Your task to perform on an android device: change the upload size in google photos Image 0: 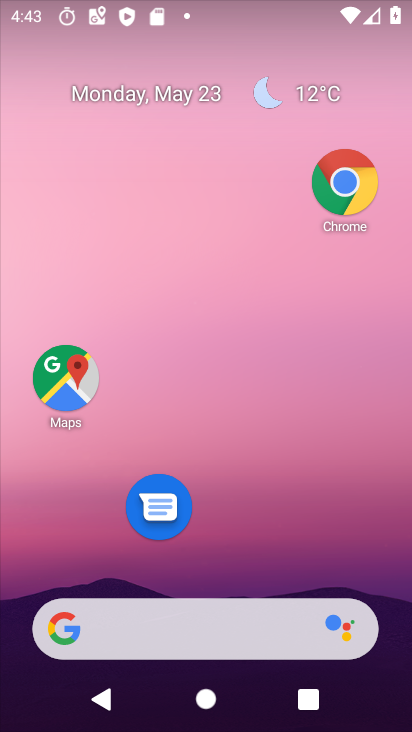
Step 0: drag from (252, 530) to (280, 120)
Your task to perform on an android device: change the upload size in google photos Image 1: 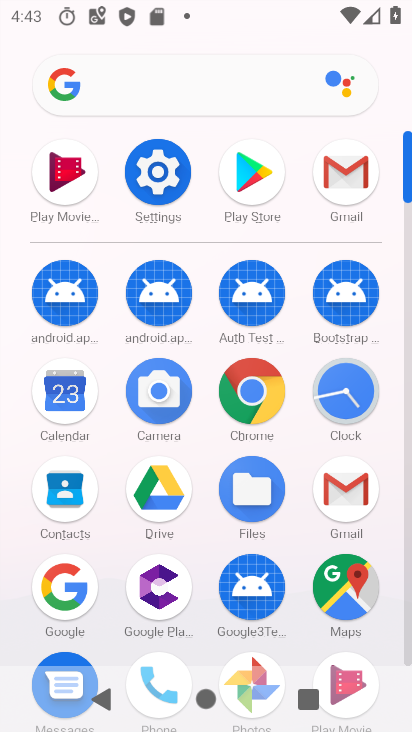
Step 1: click (242, 659)
Your task to perform on an android device: change the upload size in google photos Image 2: 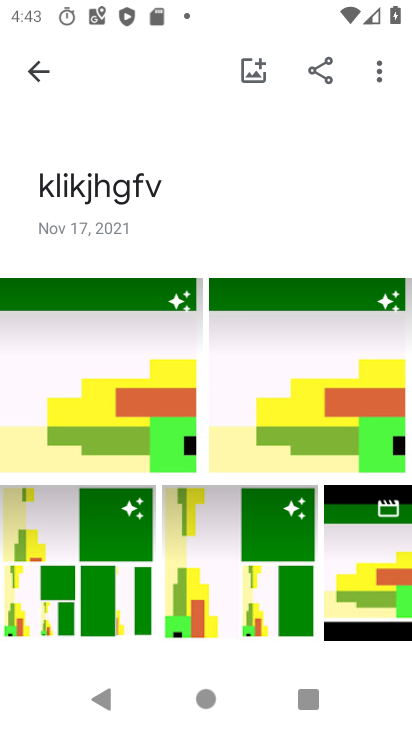
Step 2: click (42, 112)
Your task to perform on an android device: change the upload size in google photos Image 3: 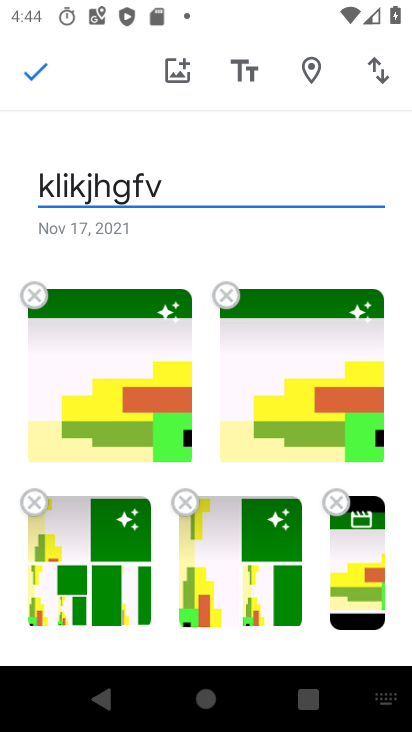
Step 3: click (46, 77)
Your task to perform on an android device: change the upload size in google photos Image 4: 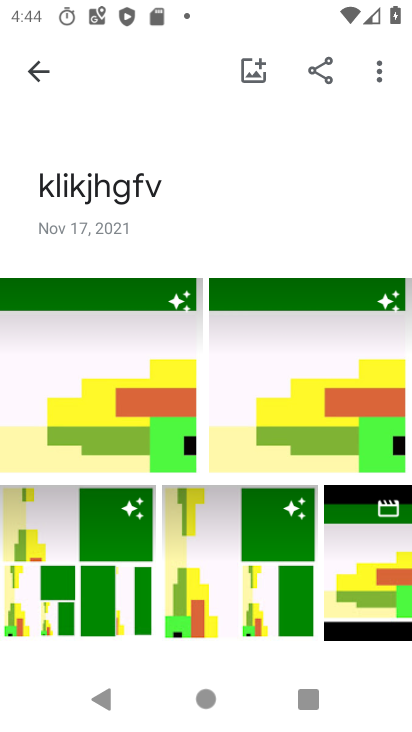
Step 4: click (46, 77)
Your task to perform on an android device: change the upload size in google photos Image 5: 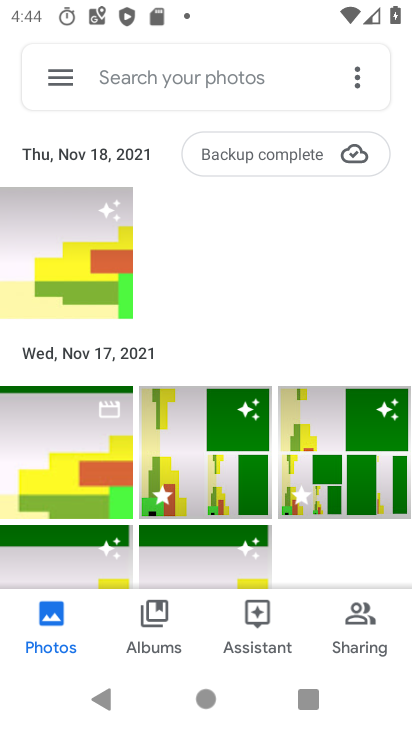
Step 5: click (46, 77)
Your task to perform on an android device: change the upload size in google photos Image 6: 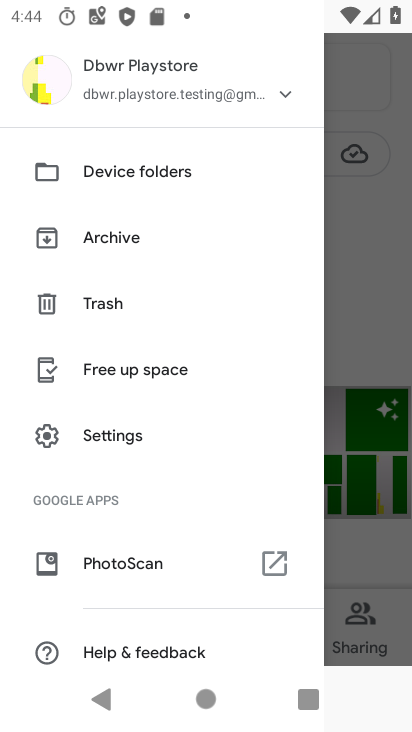
Step 6: click (93, 452)
Your task to perform on an android device: change the upload size in google photos Image 7: 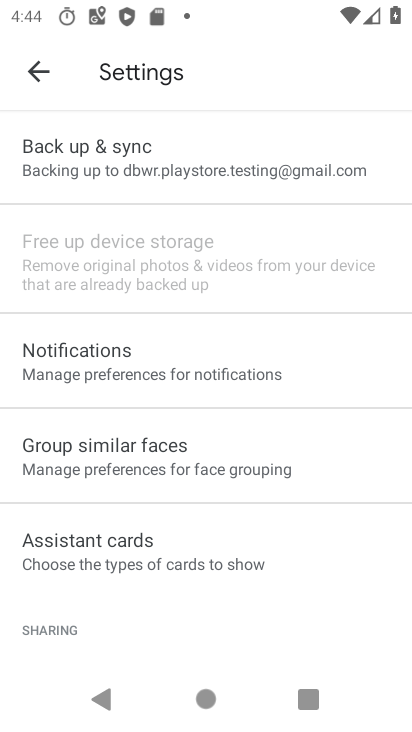
Step 7: click (144, 162)
Your task to perform on an android device: change the upload size in google photos Image 8: 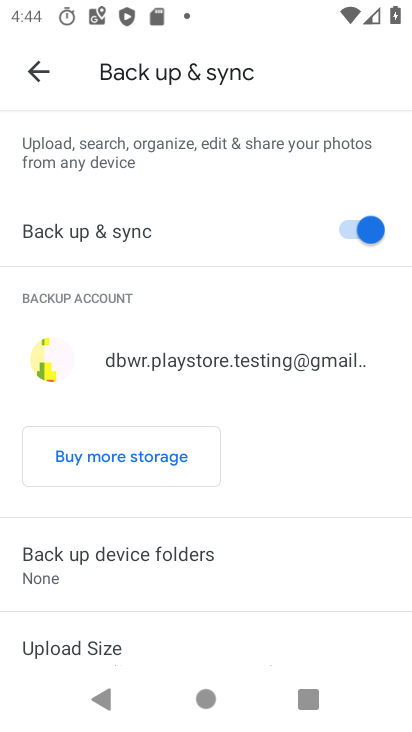
Step 8: click (101, 650)
Your task to perform on an android device: change the upload size in google photos Image 9: 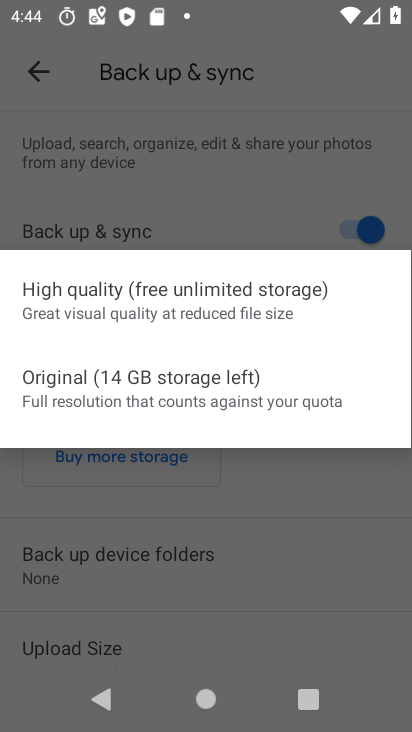
Step 9: click (195, 398)
Your task to perform on an android device: change the upload size in google photos Image 10: 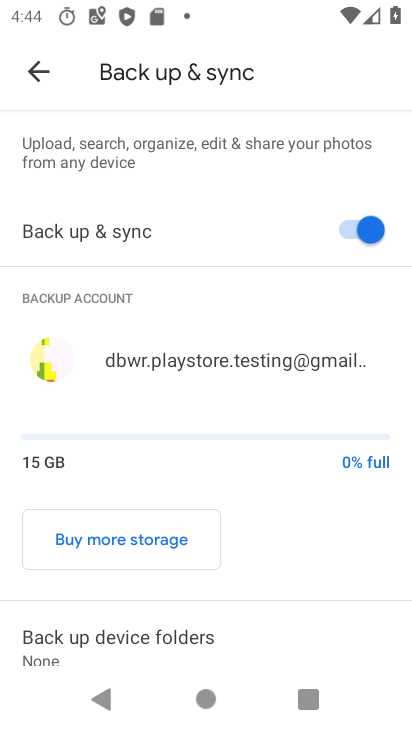
Step 10: task complete